Your task to perform on an android device: Go to privacy settings Image 0: 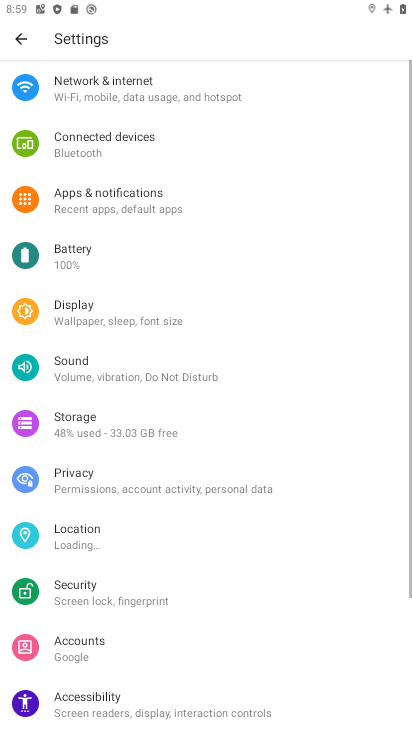
Step 0: press home button
Your task to perform on an android device: Go to privacy settings Image 1: 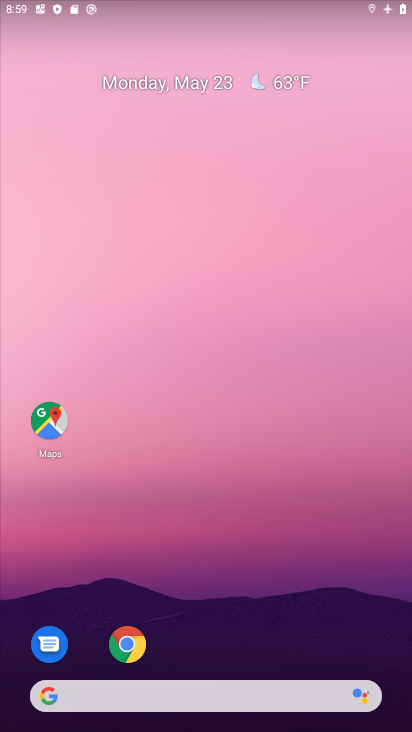
Step 1: drag from (207, 654) to (241, 128)
Your task to perform on an android device: Go to privacy settings Image 2: 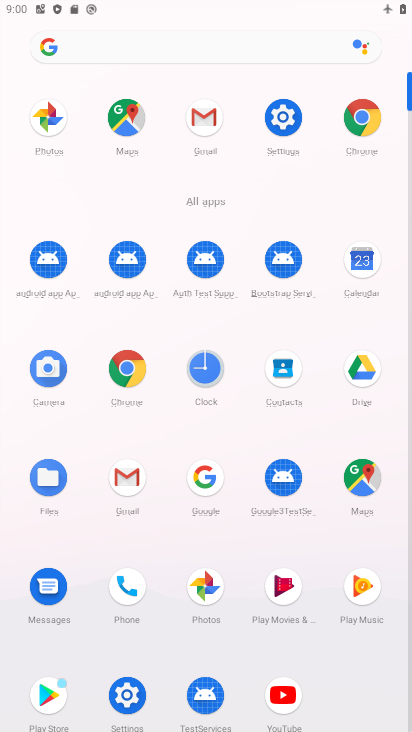
Step 2: click (269, 108)
Your task to perform on an android device: Go to privacy settings Image 3: 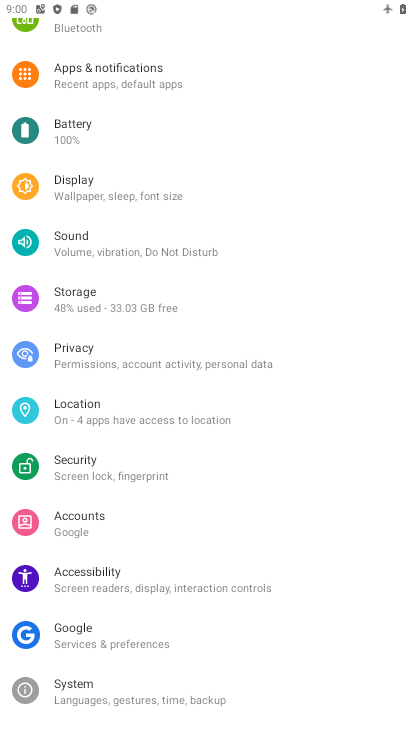
Step 3: click (100, 346)
Your task to perform on an android device: Go to privacy settings Image 4: 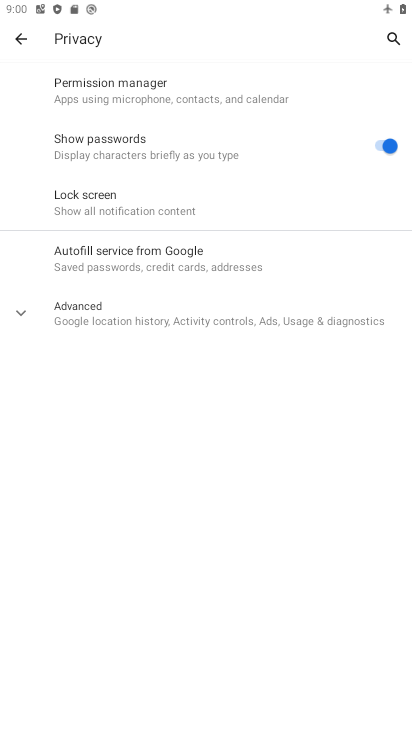
Step 4: click (22, 309)
Your task to perform on an android device: Go to privacy settings Image 5: 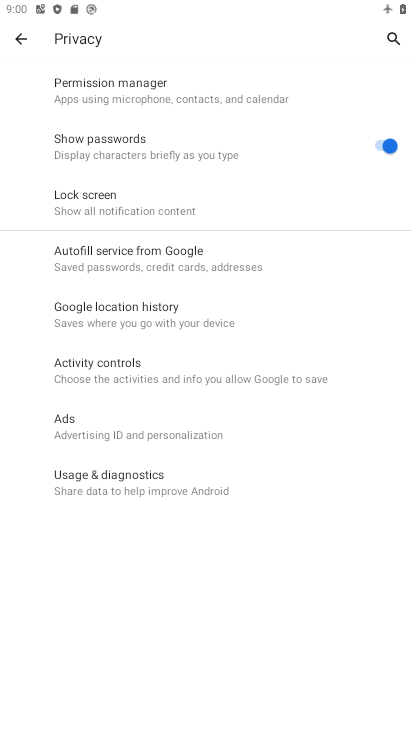
Step 5: task complete